Your task to perform on an android device: refresh tabs in the chrome app Image 0: 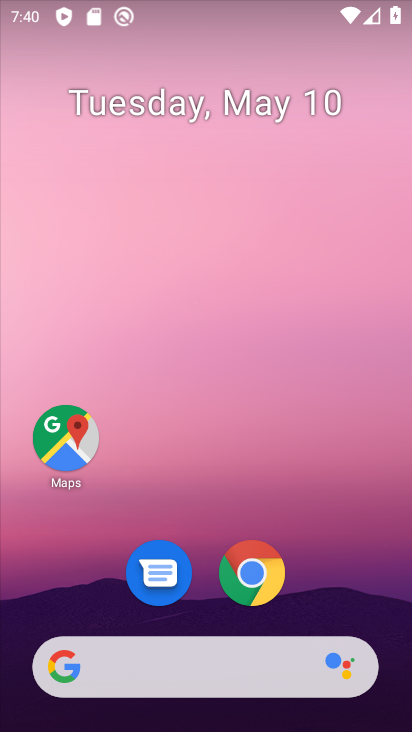
Step 0: drag from (376, 567) to (400, 151)
Your task to perform on an android device: refresh tabs in the chrome app Image 1: 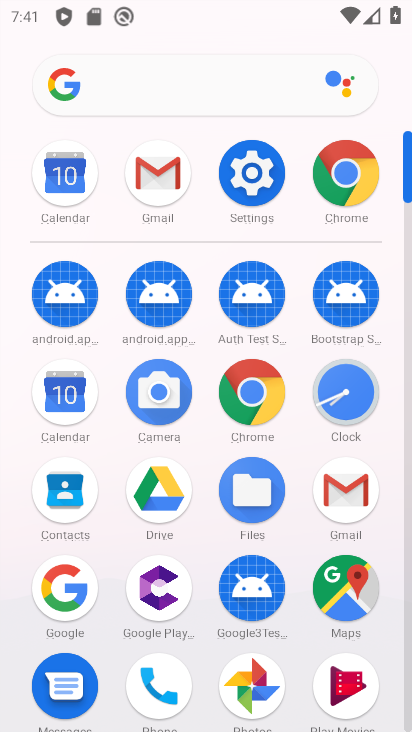
Step 1: click (254, 401)
Your task to perform on an android device: refresh tabs in the chrome app Image 2: 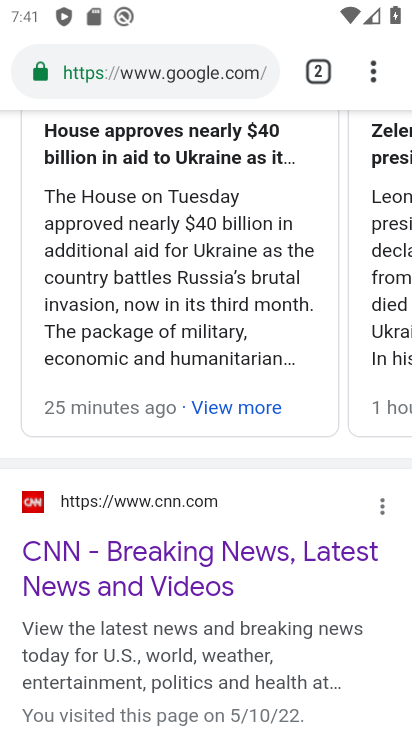
Step 2: drag from (305, 166) to (277, 557)
Your task to perform on an android device: refresh tabs in the chrome app Image 3: 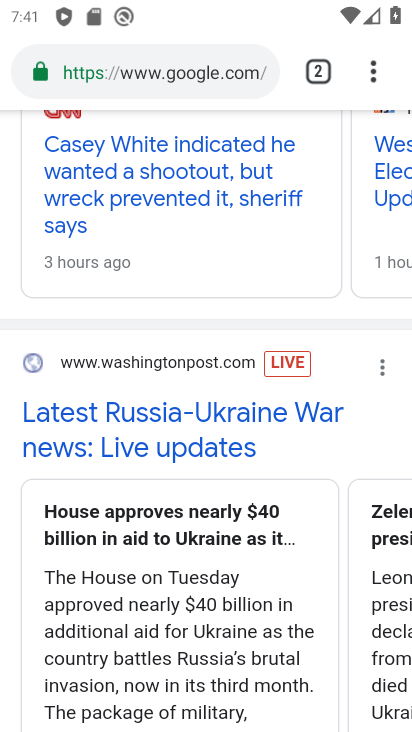
Step 3: drag from (291, 260) to (284, 692)
Your task to perform on an android device: refresh tabs in the chrome app Image 4: 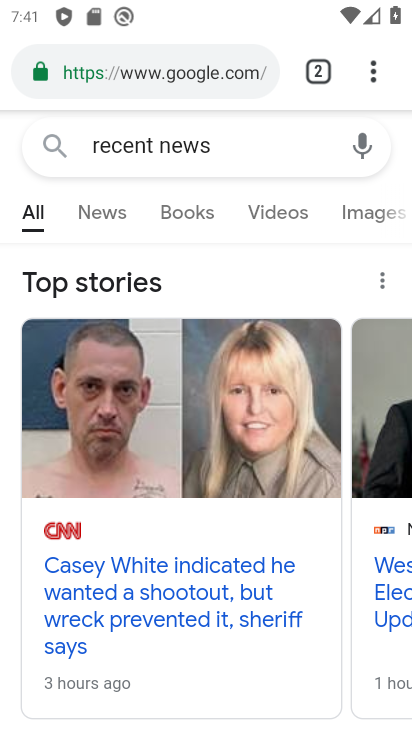
Step 4: click (378, 78)
Your task to perform on an android device: refresh tabs in the chrome app Image 5: 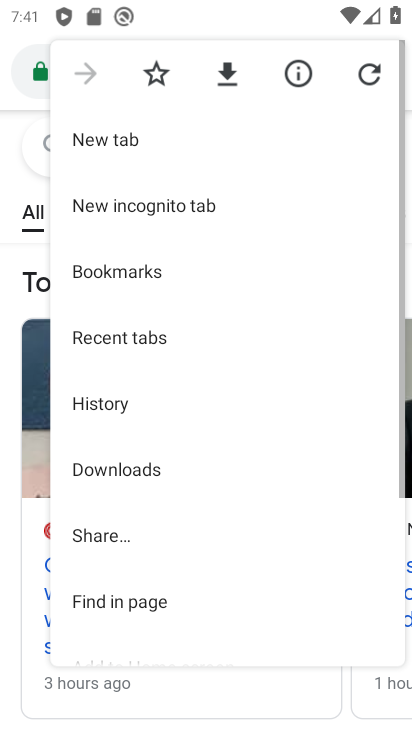
Step 5: click (368, 74)
Your task to perform on an android device: refresh tabs in the chrome app Image 6: 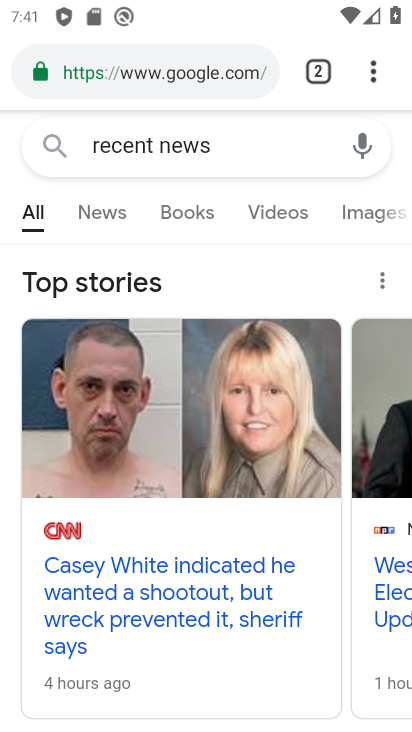
Step 6: task complete